Your task to perform on an android device: Open Yahoo.com Image 0: 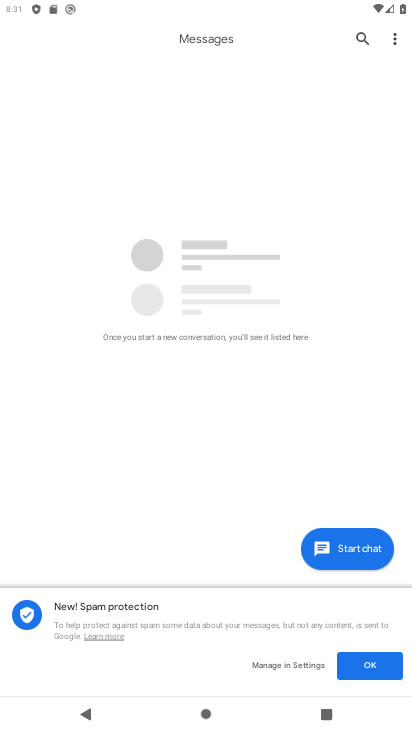
Step 0: press home button
Your task to perform on an android device: Open Yahoo.com Image 1: 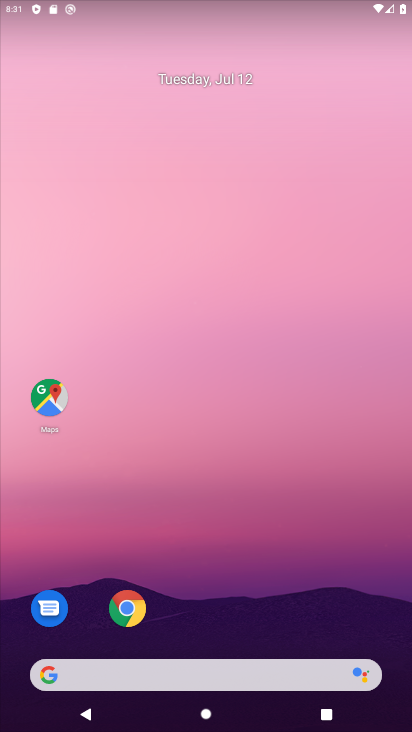
Step 1: click (143, 600)
Your task to perform on an android device: Open Yahoo.com Image 2: 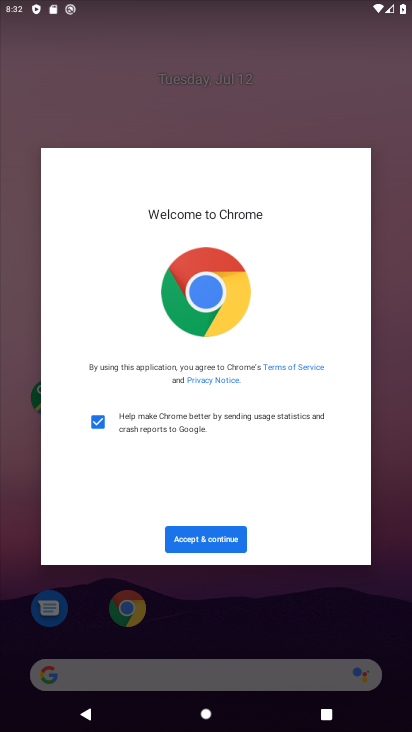
Step 2: click (219, 540)
Your task to perform on an android device: Open Yahoo.com Image 3: 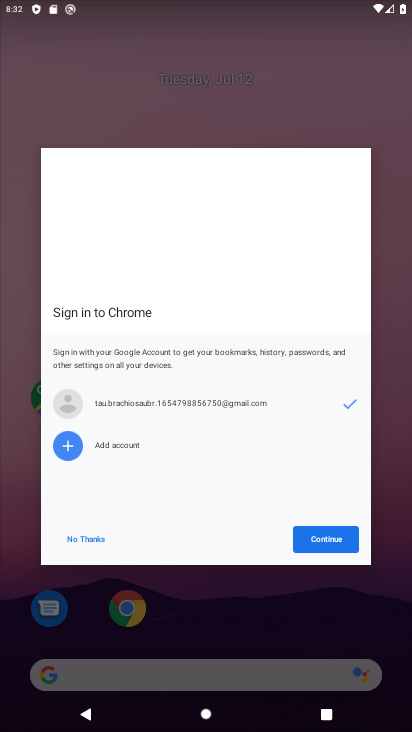
Step 3: click (339, 526)
Your task to perform on an android device: Open Yahoo.com Image 4: 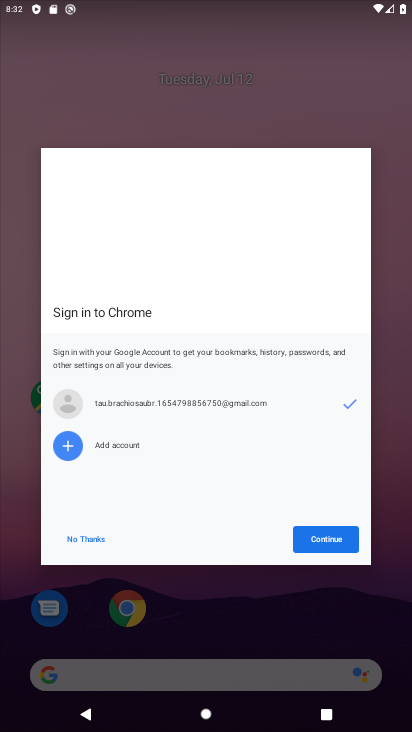
Step 4: click (339, 528)
Your task to perform on an android device: Open Yahoo.com Image 5: 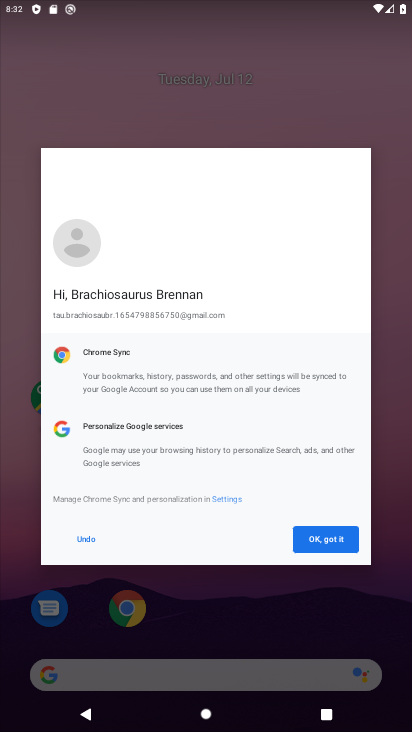
Step 5: click (333, 540)
Your task to perform on an android device: Open Yahoo.com Image 6: 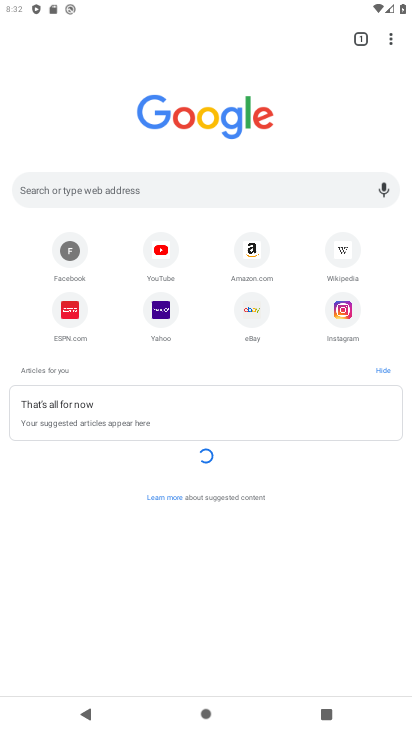
Step 6: click (161, 308)
Your task to perform on an android device: Open Yahoo.com Image 7: 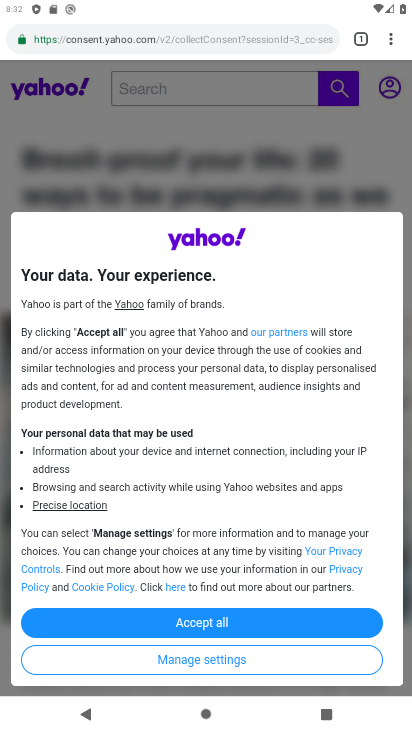
Step 7: click (223, 610)
Your task to perform on an android device: Open Yahoo.com Image 8: 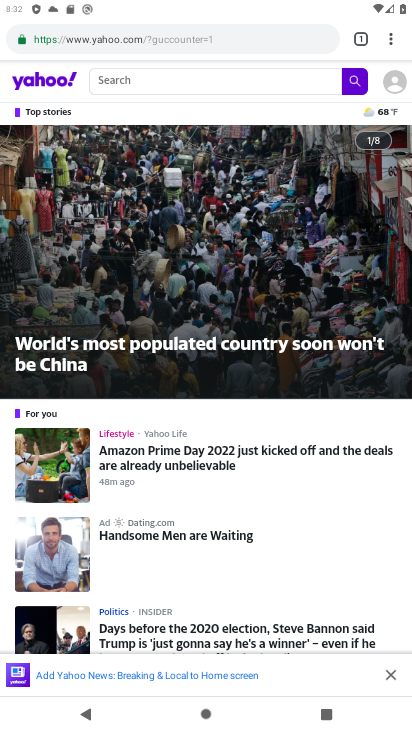
Step 8: task complete